Your task to perform on an android device: open app "Fetch Rewards" (install if not already installed) Image 0: 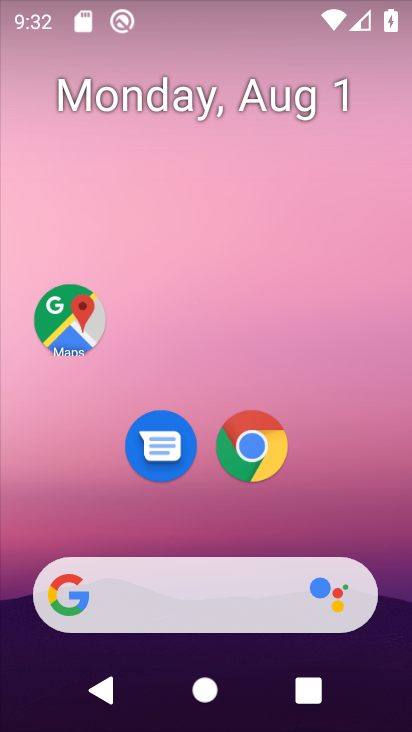
Step 0: drag from (206, 516) to (259, 3)
Your task to perform on an android device: open app "Fetch Rewards" (install if not already installed) Image 1: 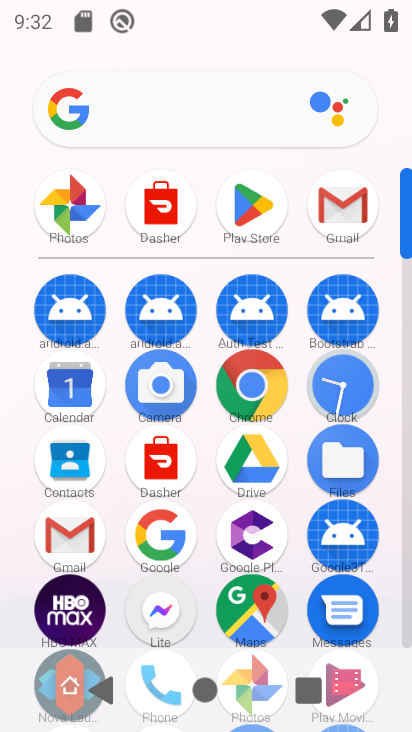
Step 1: click (260, 211)
Your task to perform on an android device: open app "Fetch Rewards" (install if not already installed) Image 2: 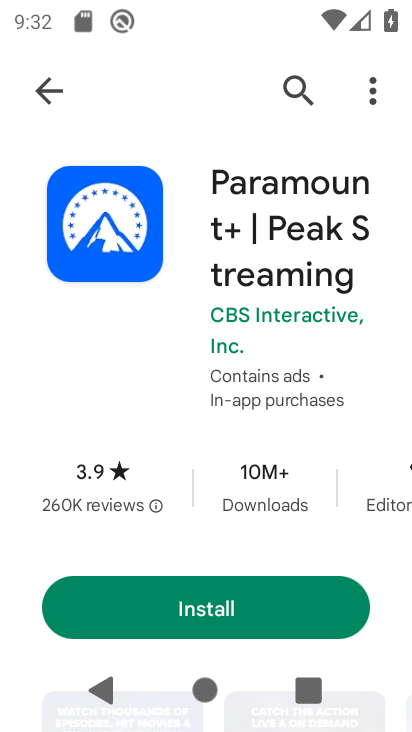
Step 2: click (292, 81)
Your task to perform on an android device: open app "Fetch Rewards" (install if not already installed) Image 3: 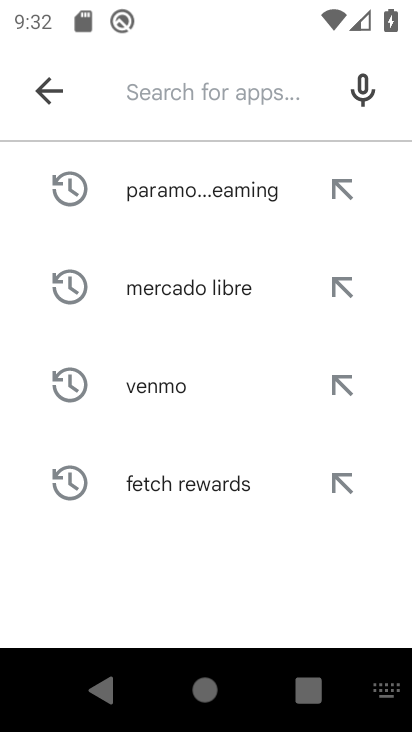
Step 3: type "Fetch Rewards"
Your task to perform on an android device: open app "Fetch Rewards" (install if not already installed) Image 4: 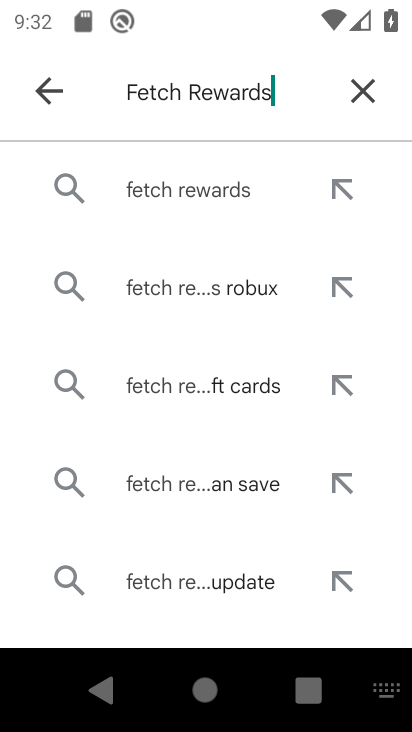
Step 4: click (153, 194)
Your task to perform on an android device: open app "Fetch Rewards" (install if not already installed) Image 5: 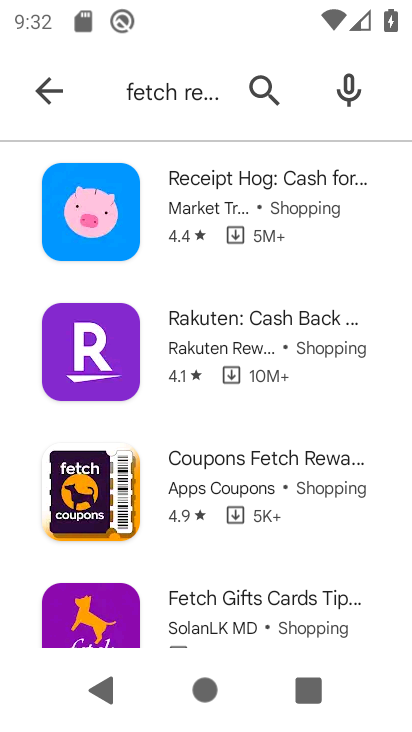
Step 5: task complete